Your task to perform on an android device: Open my contact list Image 0: 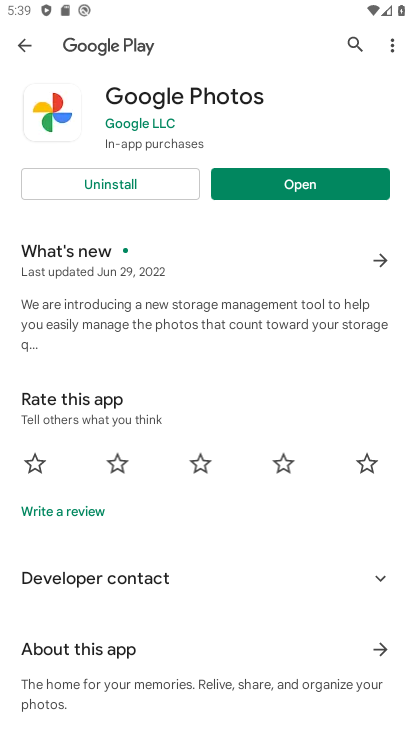
Step 0: click (249, 175)
Your task to perform on an android device: Open my contact list Image 1: 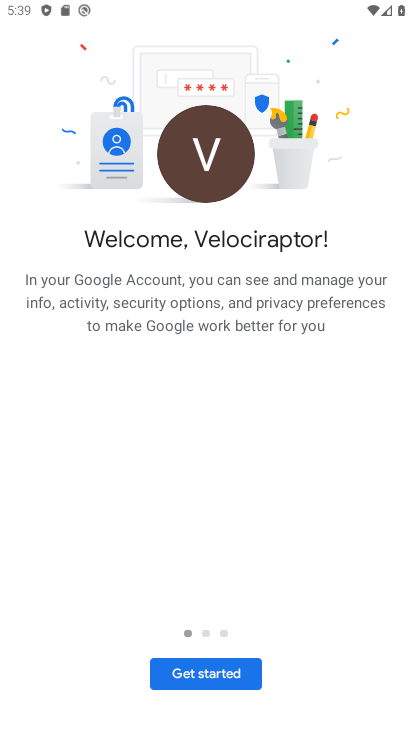
Step 1: click (218, 677)
Your task to perform on an android device: Open my contact list Image 2: 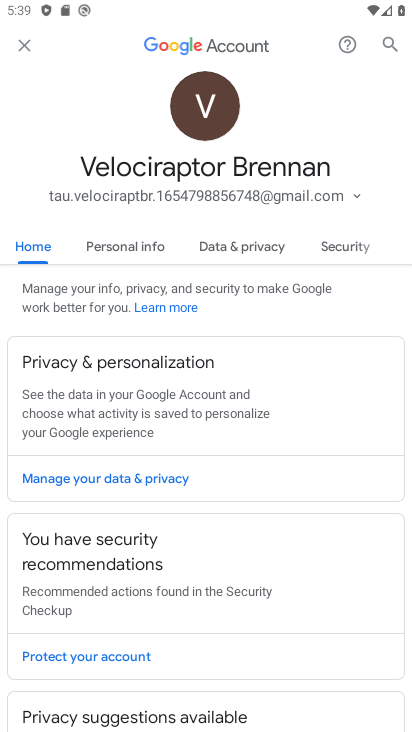
Step 2: click (218, 677)
Your task to perform on an android device: Open my contact list Image 3: 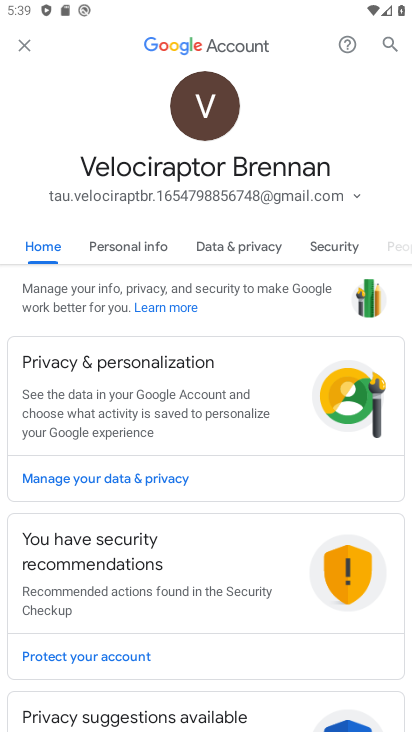
Step 3: press home button
Your task to perform on an android device: Open my contact list Image 4: 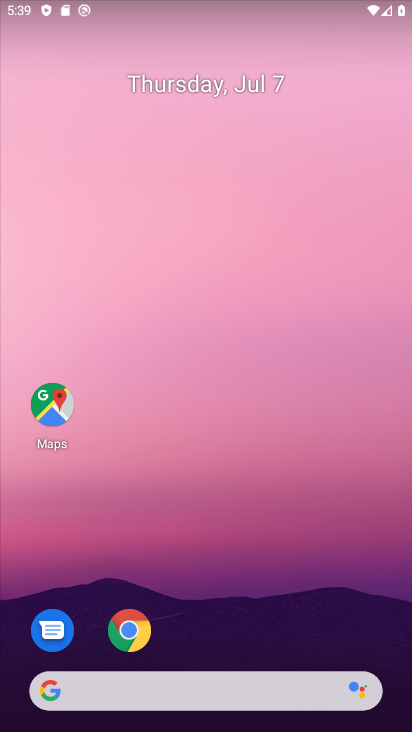
Step 4: drag from (195, 458) to (229, 36)
Your task to perform on an android device: Open my contact list Image 5: 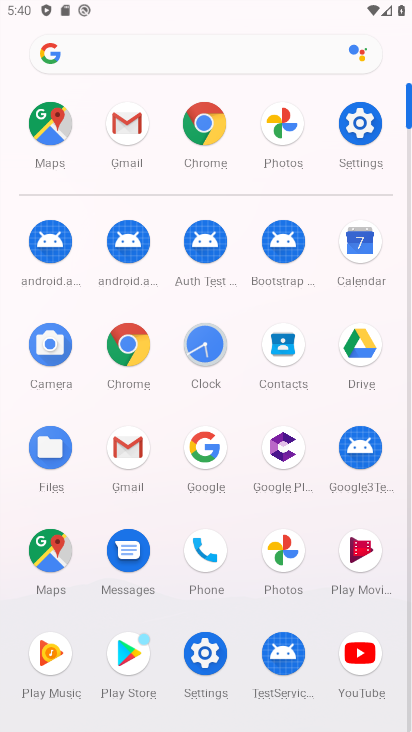
Step 5: click (286, 357)
Your task to perform on an android device: Open my contact list Image 6: 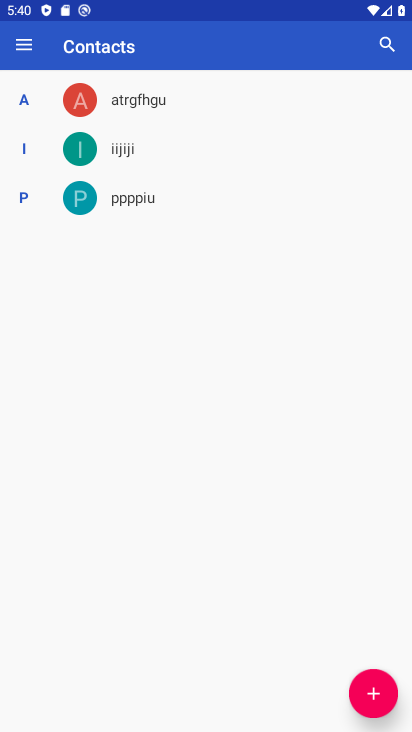
Step 6: task complete